Your task to perform on an android device: Open Google Chrome and open the bookmarks view Image 0: 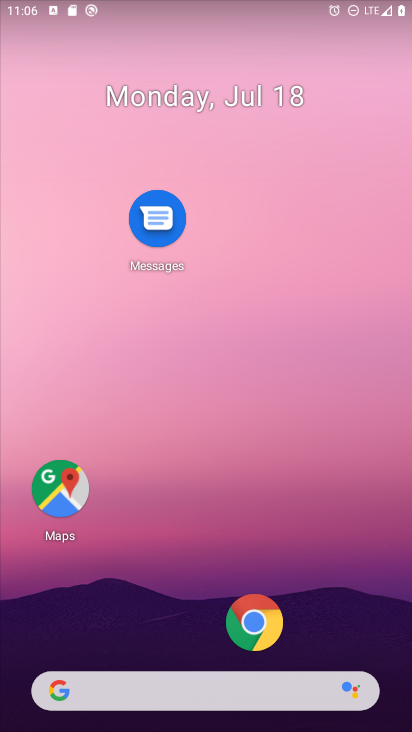
Step 0: drag from (202, 664) to (216, 152)
Your task to perform on an android device: Open Google Chrome and open the bookmarks view Image 1: 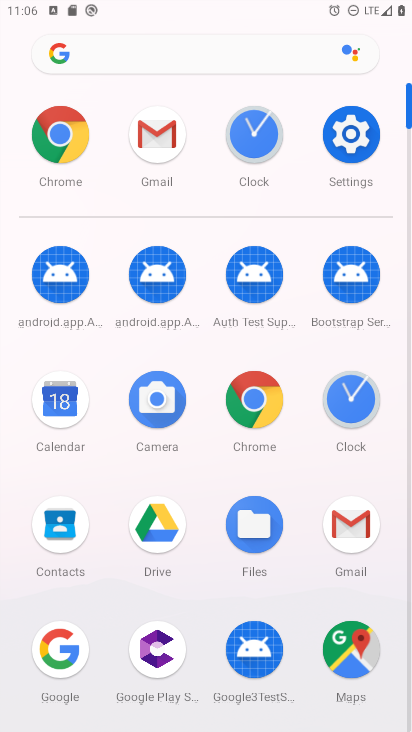
Step 1: click (263, 424)
Your task to perform on an android device: Open Google Chrome and open the bookmarks view Image 2: 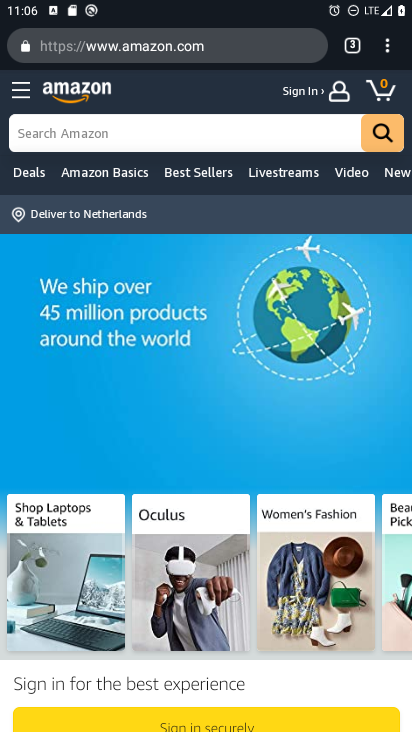
Step 2: click (387, 51)
Your task to perform on an android device: Open Google Chrome and open the bookmarks view Image 3: 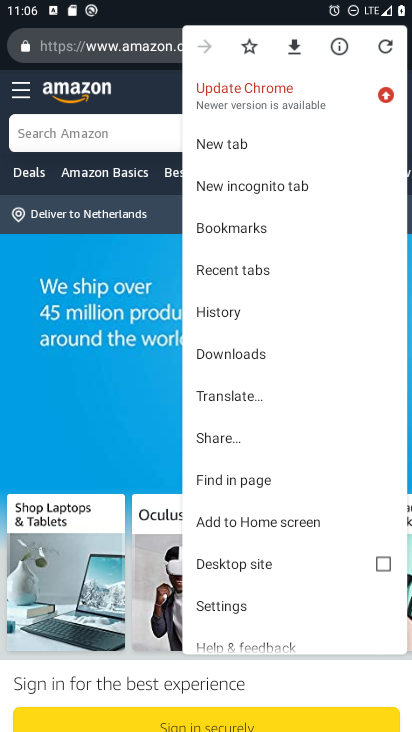
Step 3: click (237, 608)
Your task to perform on an android device: Open Google Chrome and open the bookmarks view Image 4: 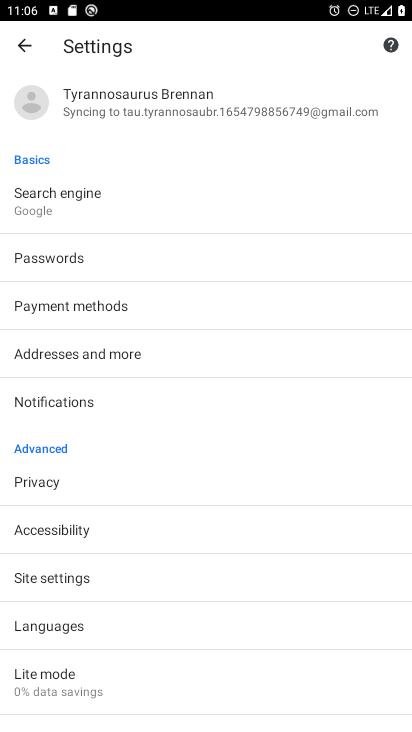
Step 4: drag from (195, 567) to (212, 365)
Your task to perform on an android device: Open Google Chrome and open the bookmarks view Image 5: 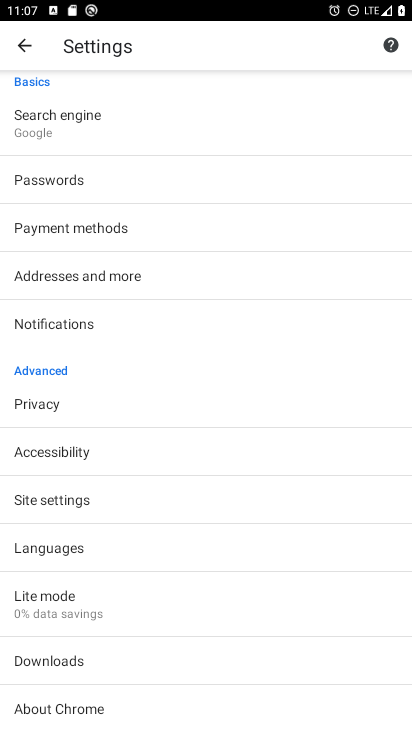
Step 5: click (20, 40)
Your task to perform on an android device: Open Google Chrome and open the bookmarks view Image 6: 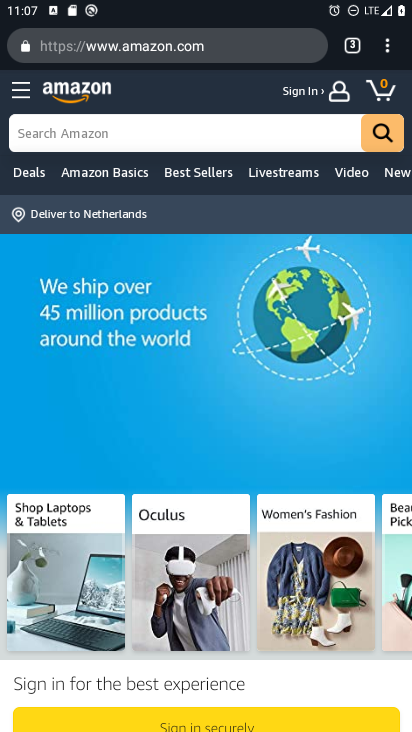
Step 6: click (387, 52)
Your task to perform on an android device: Open Google Chrome and open the bookmarks view Image 7: 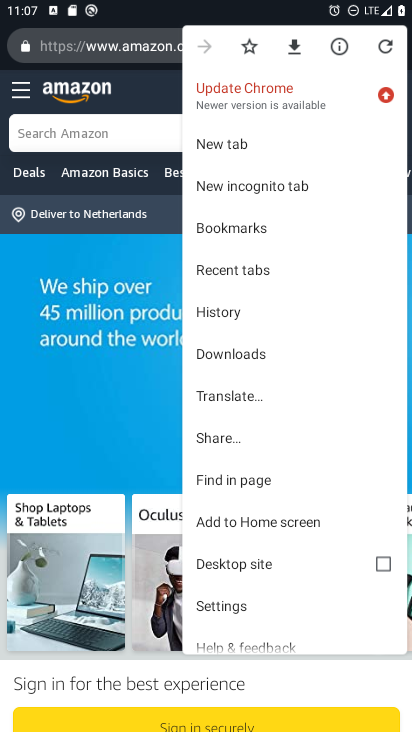
Step 7: click (240, 224)
Your task to perform on an android device: Open Google Chrome and open the bookmarks view Image 8: 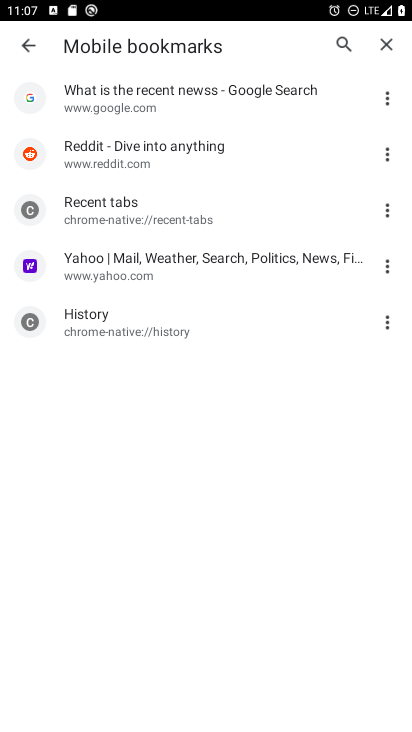
Step 8: task complete